Your task to perform on an android device: Clear the shopping cart on bestbuy. Add energizer triple a to the cart on bestbuy Image 0: 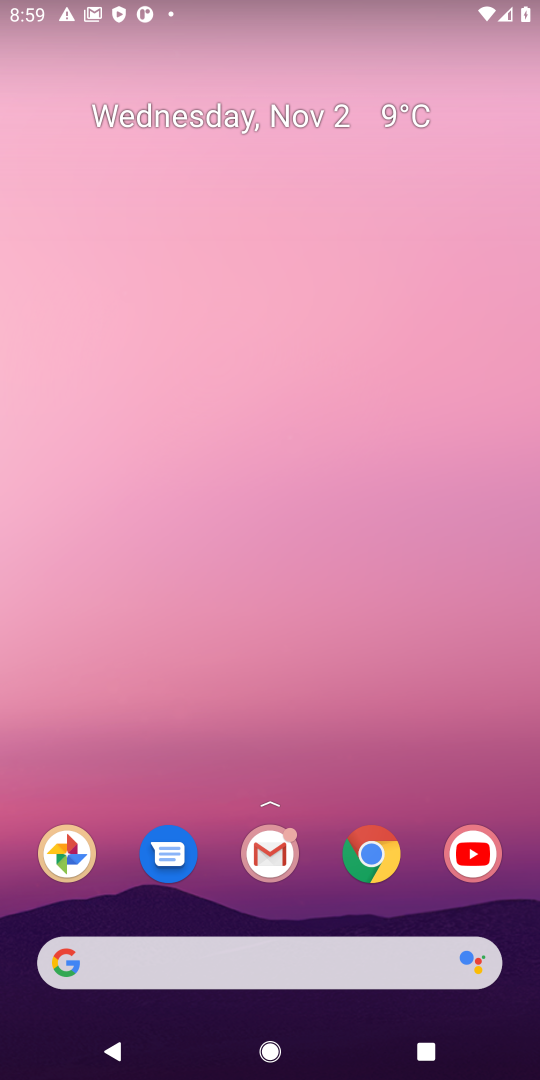
Step 0: press home button
Your task to perform on an android device: Clear the shopping cart on bestbuy. Add energizer triple a to the cart on bestbuy Image 1: 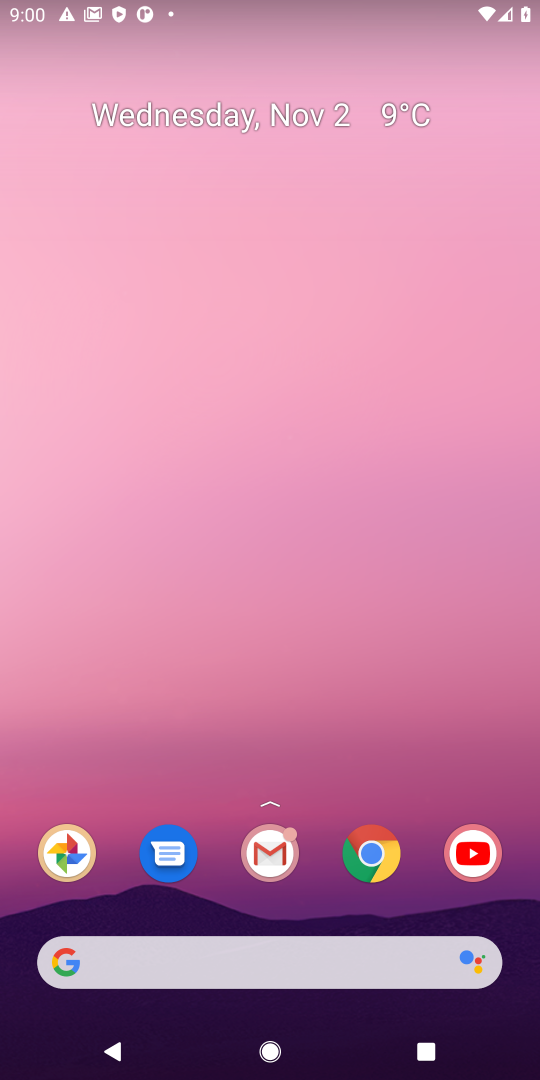
Step 1: click (372, 857)
Your task to perform on an android device: Clear the shopping cart on bestbuy. Add energizer triple a to the cart on bestbuy Image 2: 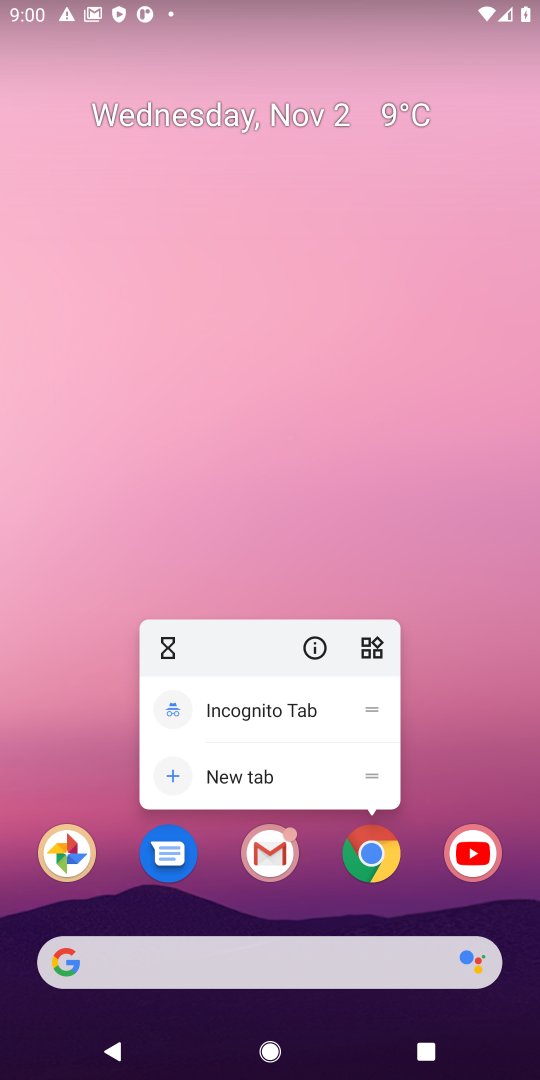
Step 2: click (372, 859)
Your task to perform on an android device: Clear the shopping cart on bestbuy. Add energizer triple a to the cart on bestbuy Image 3: 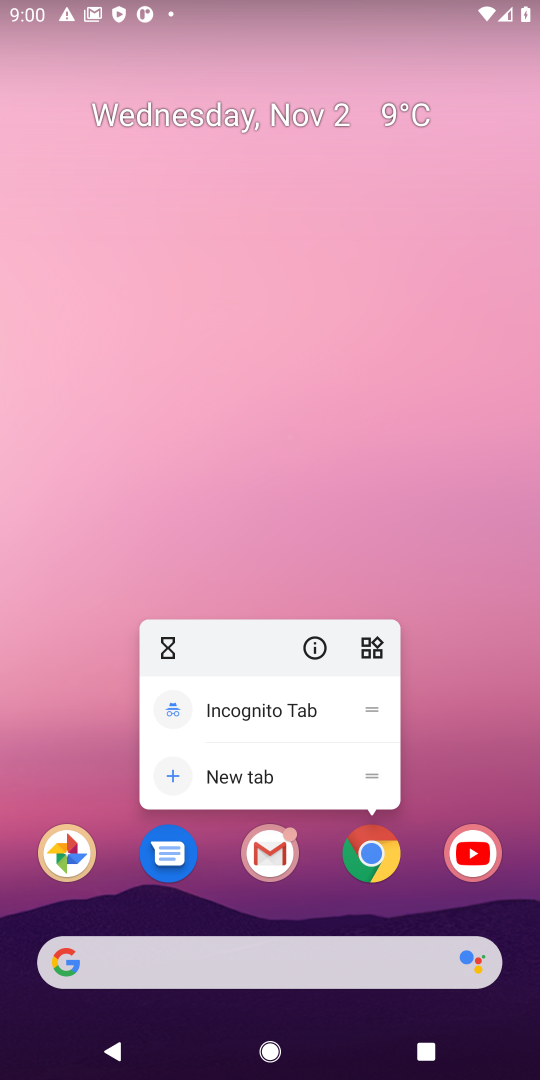
Step 3: click (372, 857)
Your task to perform on an android device: Clear the shopping cart on bestbuy. Add energizer triple a to the cart on bestbuy Image 4: 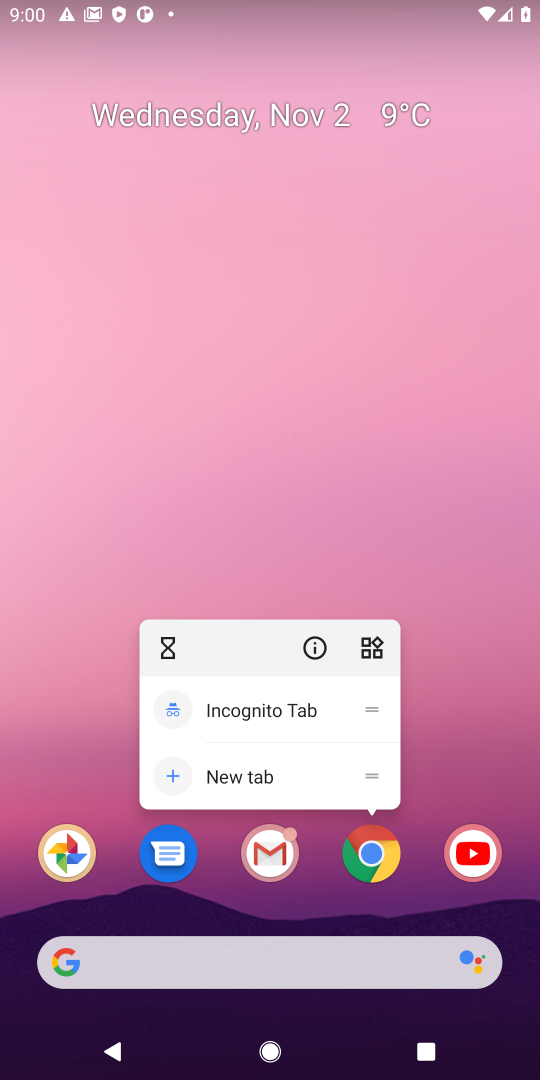
Step 4: click (372, 859)
Your task to perform on an android device: Clear the shopping cart on bestbuy. Add energizer triple a to the cart on bestbuy Image 5: 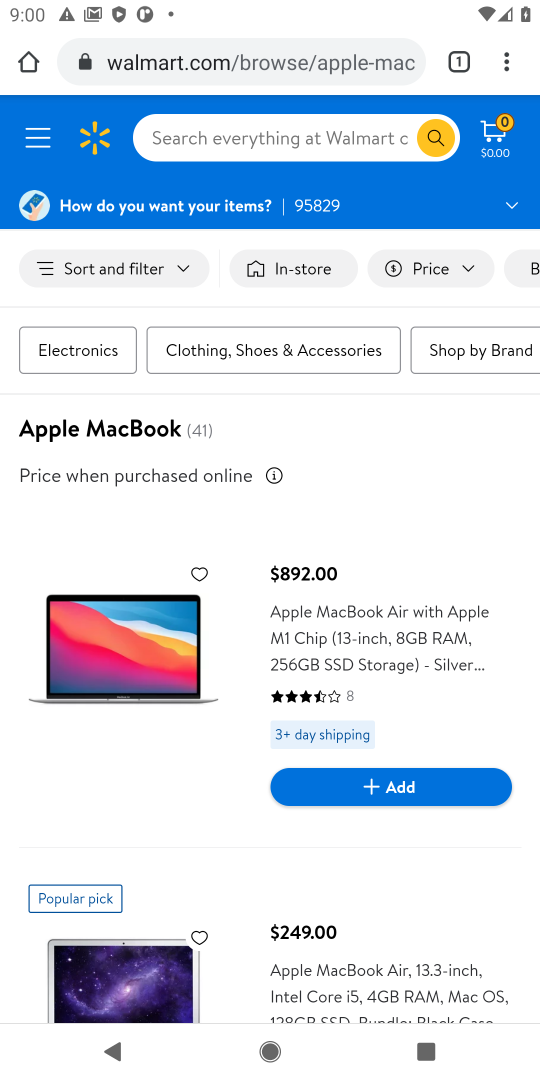
Step 5: click (311, 56)
Your task to perform on an android device: Clear the shopping cart on bestbuy. Add energizer triple a to the cart on bestbuy Image 6: 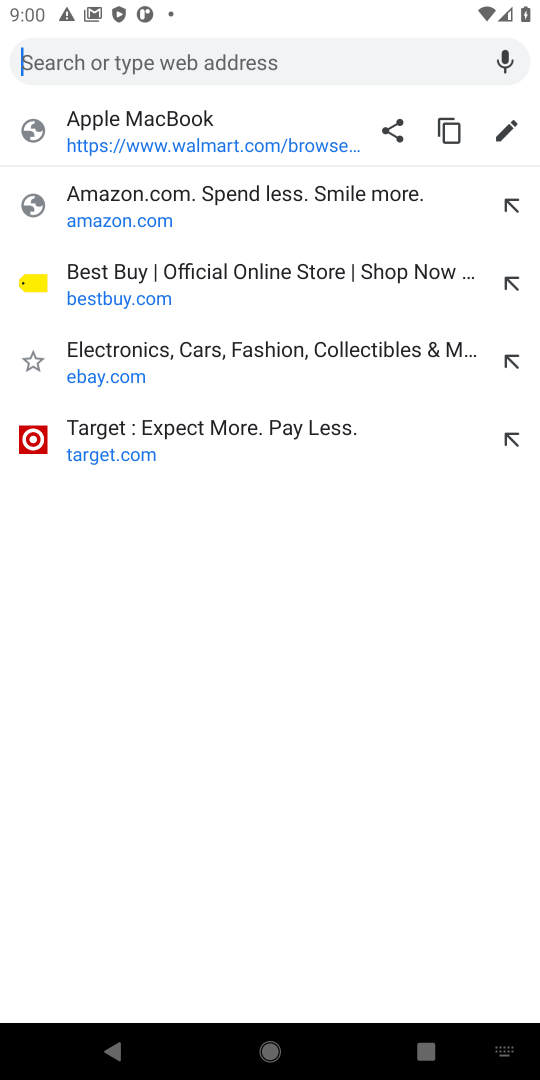
Step 6: click (108, 294)
Your task to perform on an android device: Clear the shopping cart on bestbuy. Add energizer triple a to the cart on bestbuy Image 7: 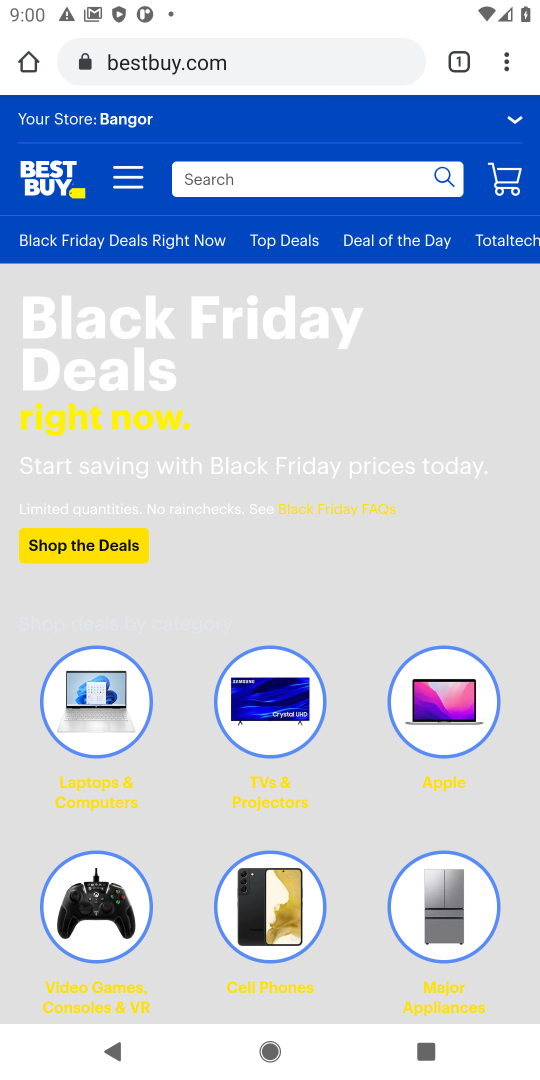
Step 7: click (287, 183)
Your task to perform on an android device: Clear the shopping cart on bestbuy. Add energizer triple a to the cart on bestbuy Image 8: 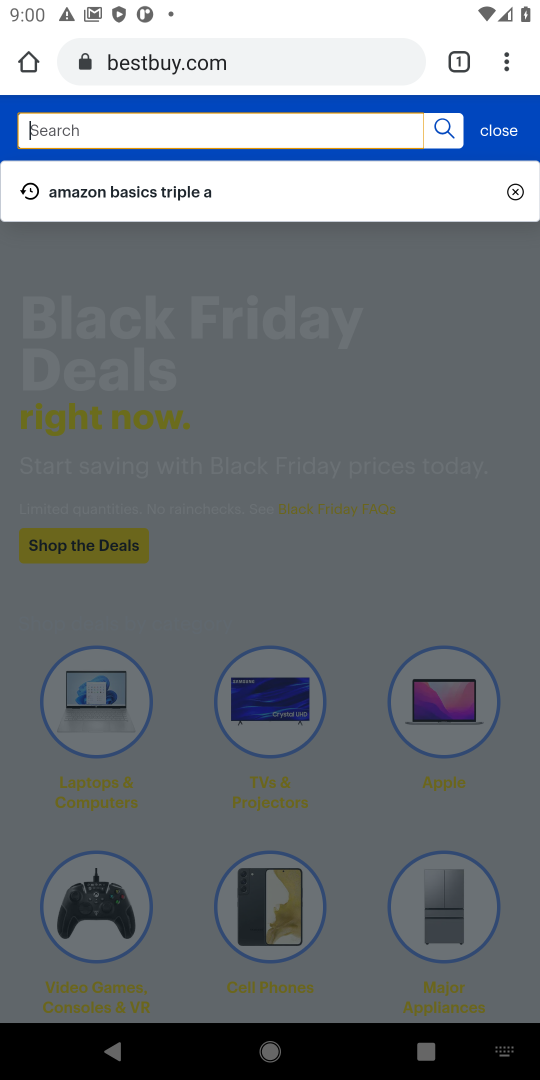
Step 8: type " energizer triple a"
Your task to perform on an android device: Clear the shopping cart on bestbuy. Add energizer triple a to the cart on bestbuy Image 9: 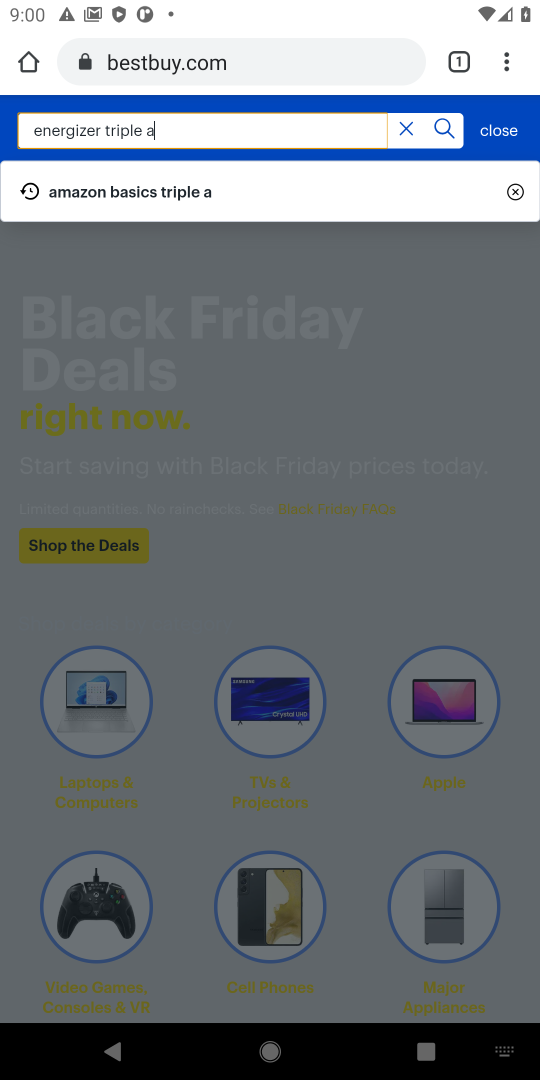
Step 9: press enter
Your task to perform on an android device: Clear the shopping cart on bestbuy. Add energizer triple a to the cart on bestbuy Image 10: 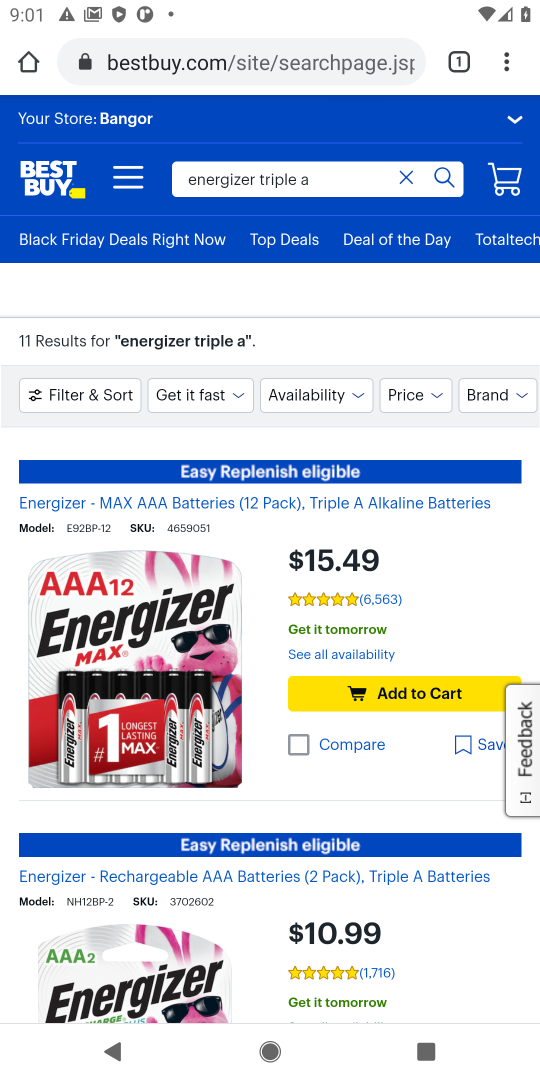
Step 10: click (402, 695)
Your task to perform on an android device: Clear the shopping cart on bestbuy. Add energizer triple a to the cart on bestbuy Image 11: 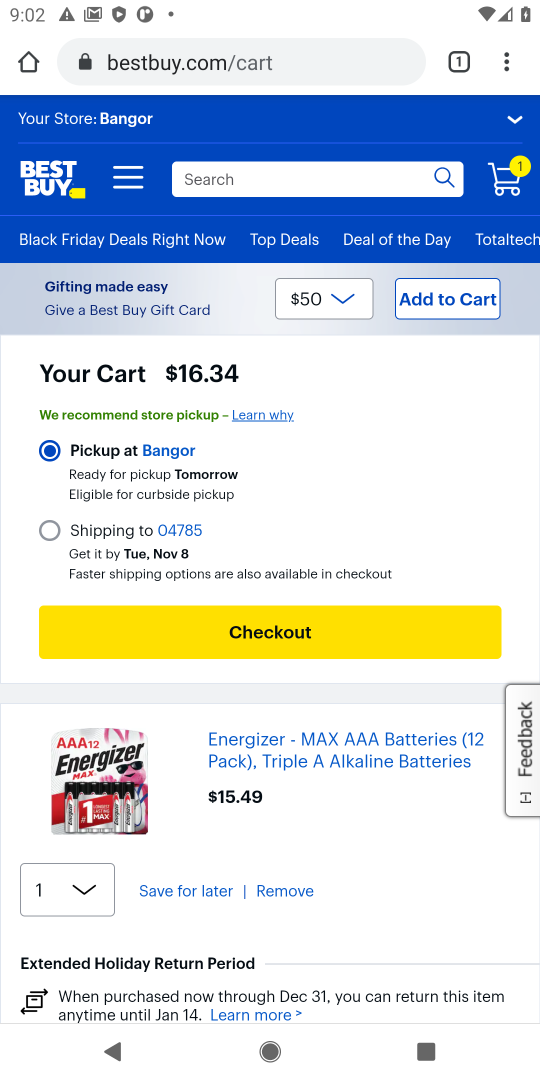
Step 11: task complete